Your task to perform on an android device: Find coffee shops on Maps Image 0: 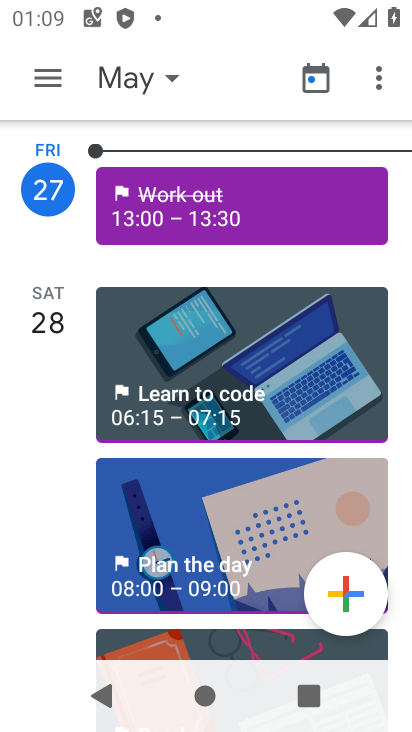
Step 0: press home button
Your task to perform on an android device: Find coffee shops on Maps Image 1: 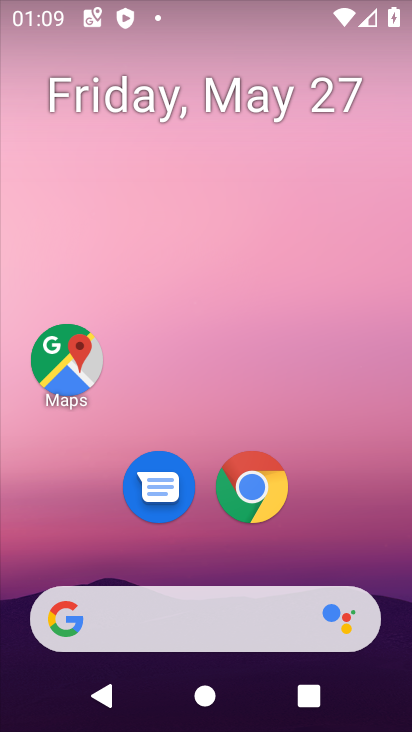
Step 1: click (80, 368)
Your task to perform on an android device: Find coffee shops on Maps Image 2: 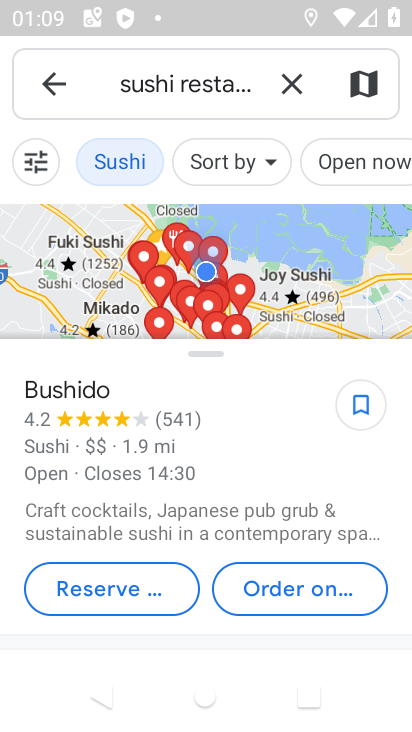
Step 2: click (298, 79)
Your task to perform on an android device: Find coffee shops on Maps Image 3: 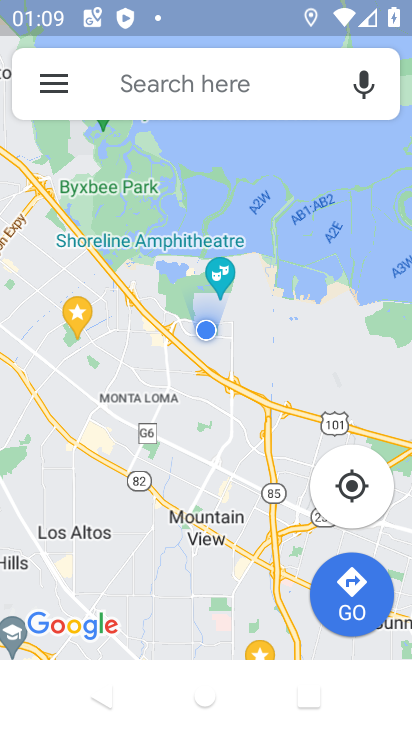
Step 3: click (239, 78)
Your task to perform on an android device: Find coffee shops on Maps Image 4: 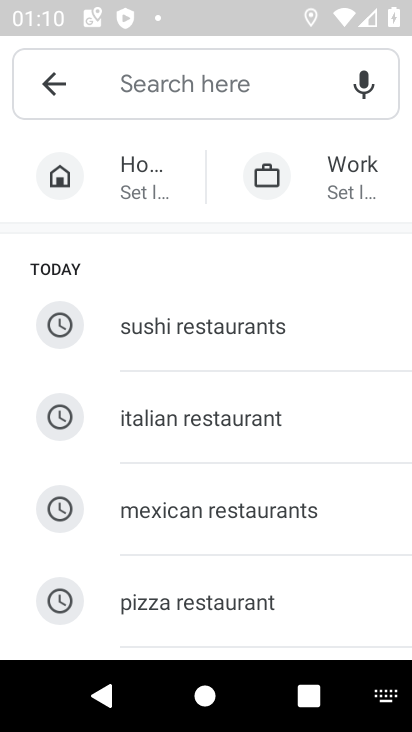
Step 4: type "coffee shops"
Your task to perform on an android device: Find coffee shops on Maps Image 5: 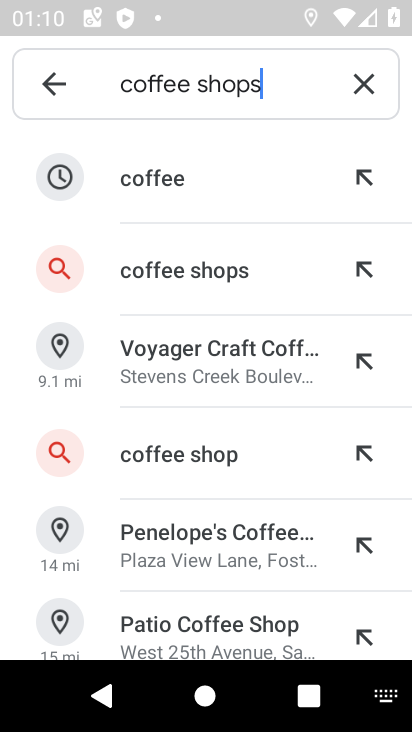
Step 5: click (254, 252)
Your task to perform on an android device: Find coffee shops on Maps Image 6: 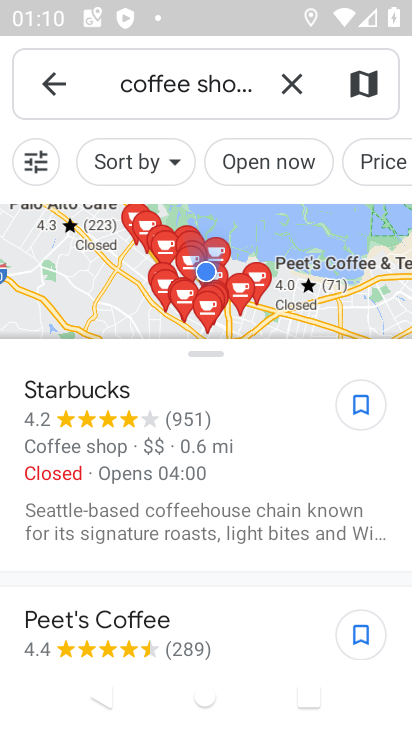
Step 6: task complete